Your task to perform on an android device: Open the map Image 0: 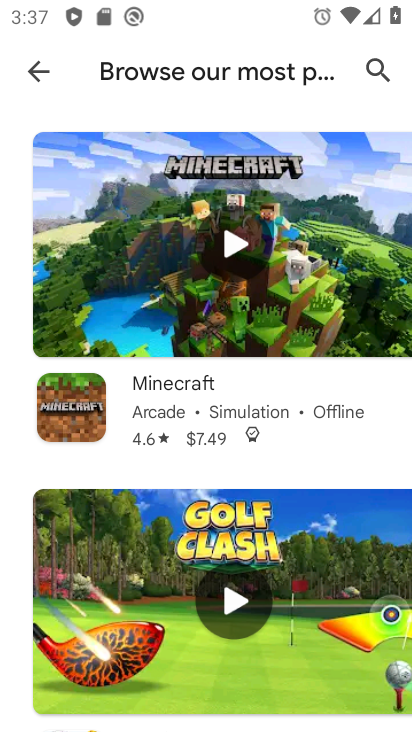
Step 0: press home button
Your task to perform on an android device: Open the map Image 1: 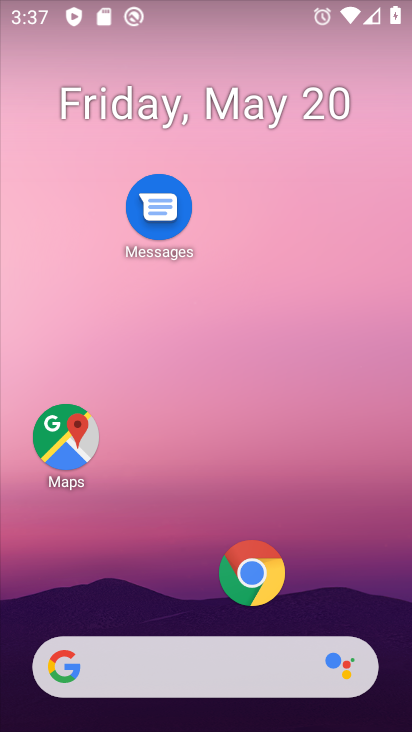
Step 1: click (60, 441)
Your task to perform on an android device: Open the map Image 2: 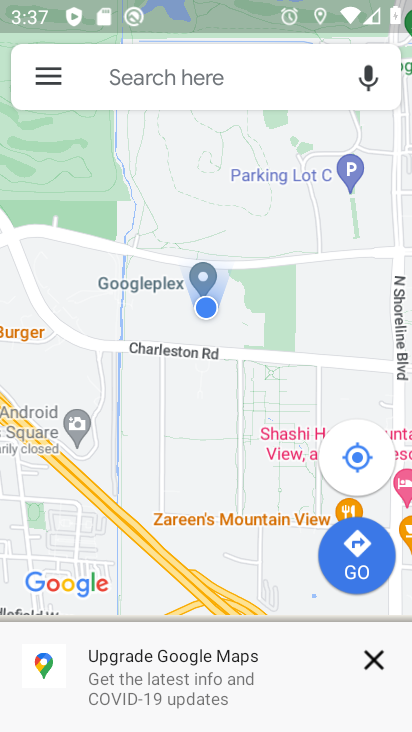
Step 2: task complete